Your task to perform on an android device: turn off data saver in the chrome app Image 0: 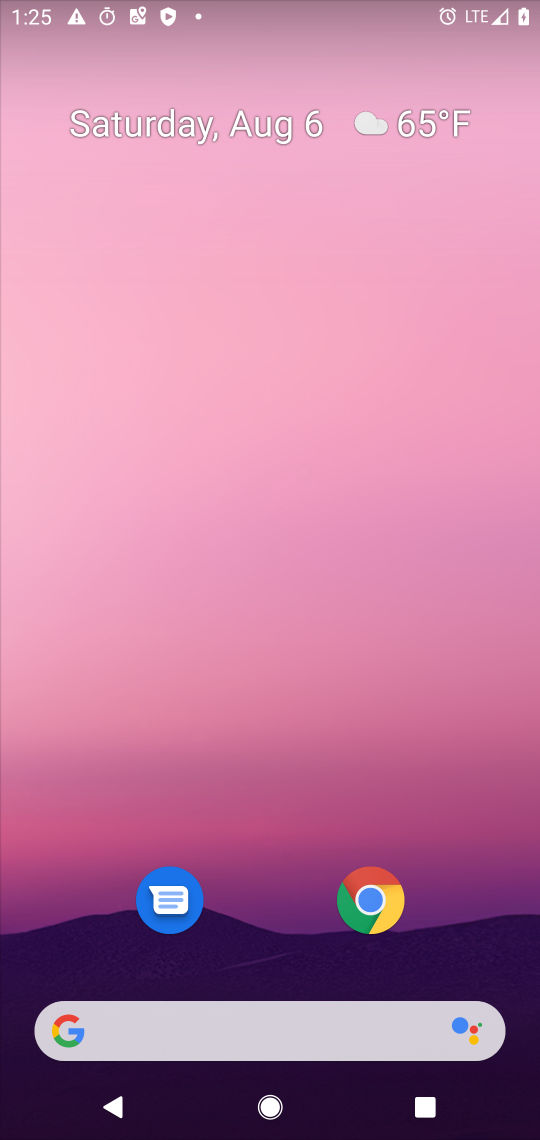
Step 0: click (372, 902)
Your task to perform on an android device: turn off data saver in the chrome app Image 1: 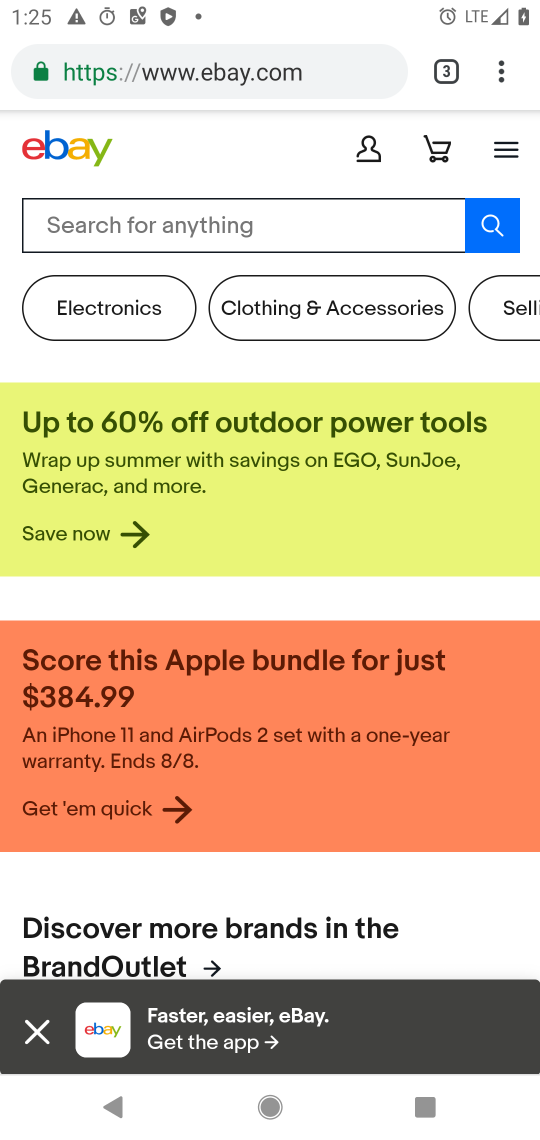
Step 1: click (500, 82)
Your task to perform on an android device: turn off data saver in the chrome app Image 2: 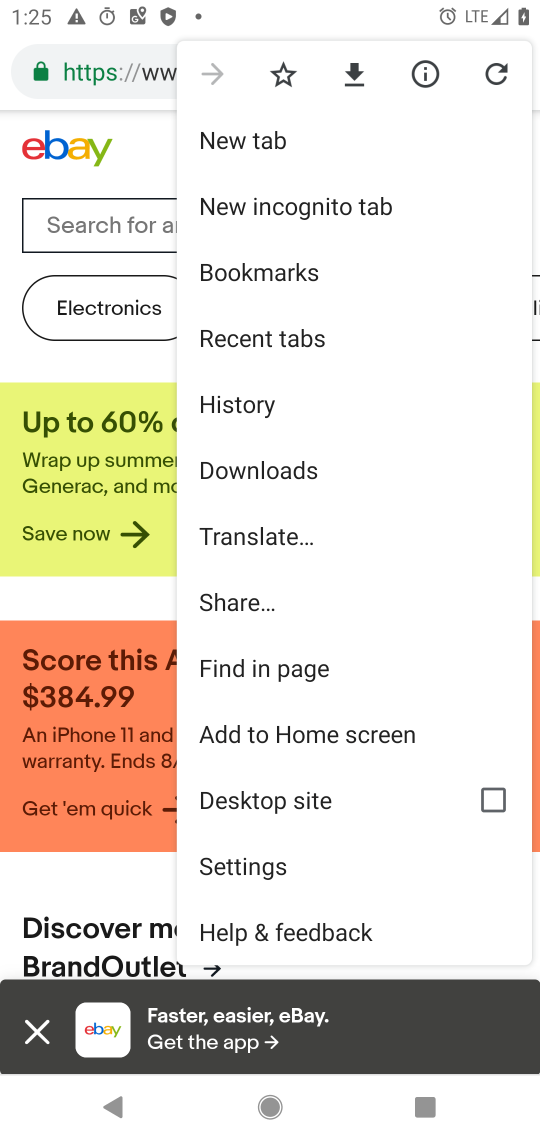
Step 2: click (266, 861)
Your task to perform on an android device: turn off data saver in the chrome app Image 3: 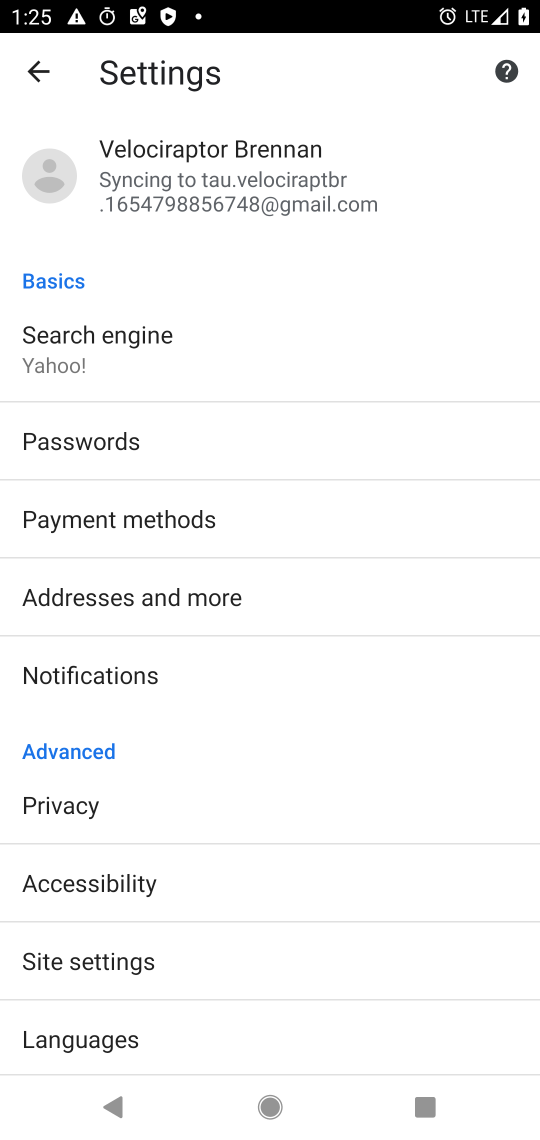
Step 3: drag from (105, 966) to (101, 353)
Your task to perform on an android device: turn off data saver in the chrome app Image 4: 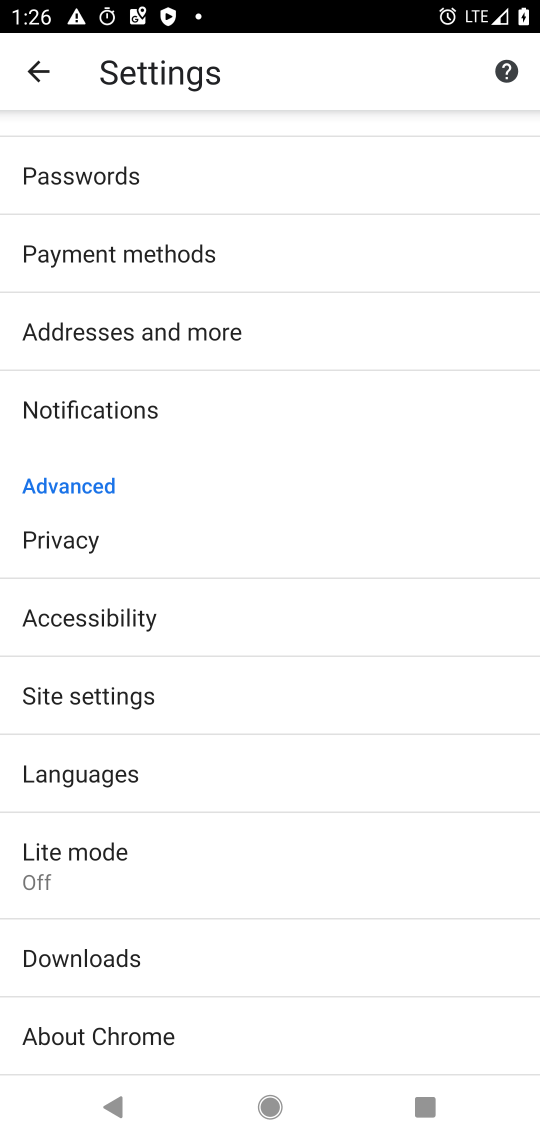
Step 4: click (100, 851)
Your task to perform on an android device: turn off data saver in the chrome app Image 5: 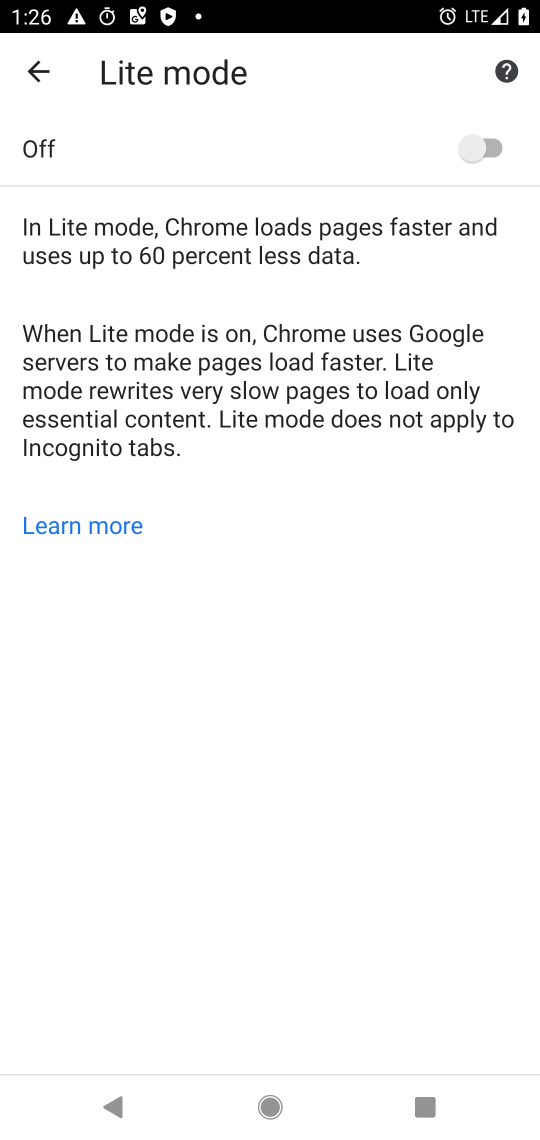
Step 5: task complete